Your task to perform on an android device: all mails in gmail Image 0: 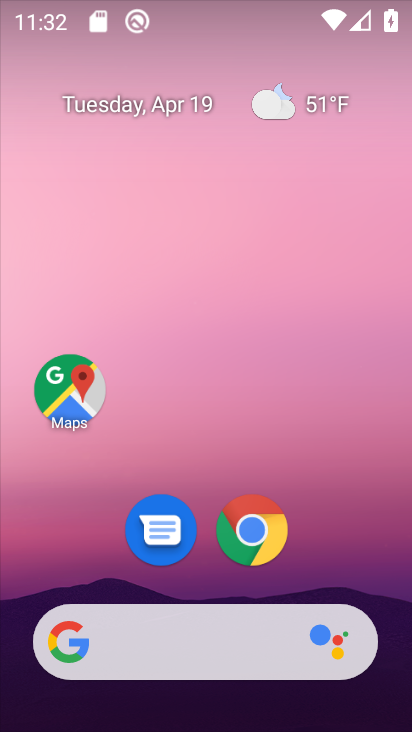
Step 0: drag from (177, 635) to (297, 54)
Your task to perform on an android device: all mails in gmail Image 1: 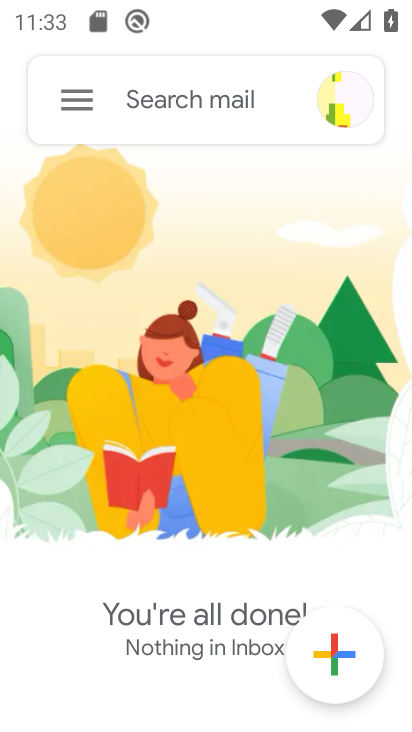
Step 1: click (89, 98)
Your task to perform on an android device: all mails in gmail Image 2: 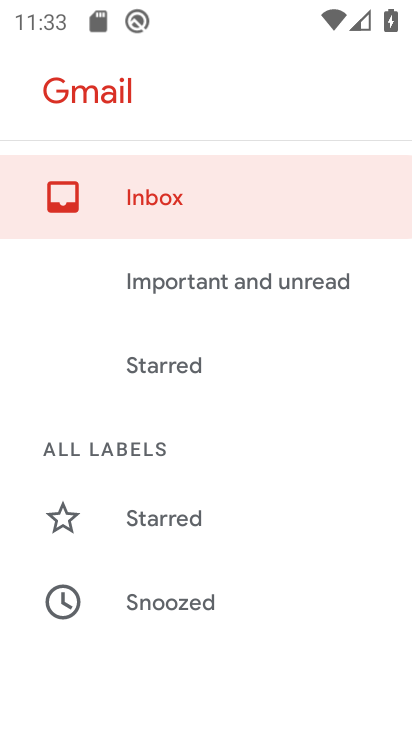
Step 2: drag from (238, 552) to (357, 195)
Your task to perform on an android device: all mails in gmail Image 3: 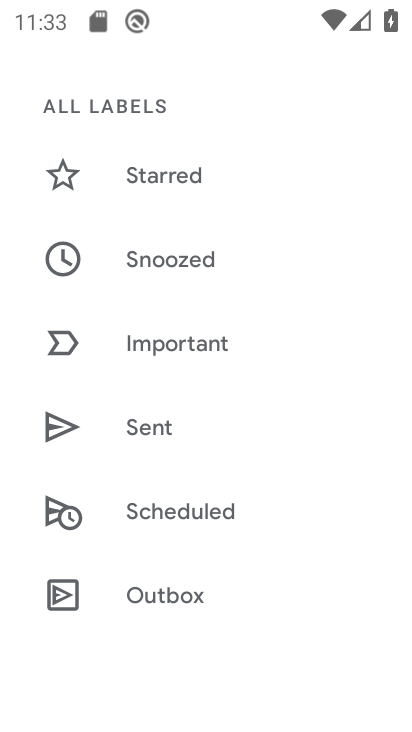
Step 3: drag from (227, 574) to (309, 193)
Your task to perform on an android device: all mails in gmail Image 4: 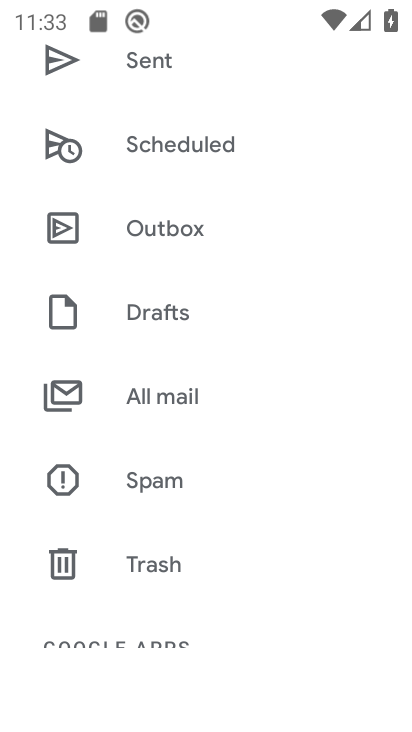
Step 4: click (173, 396)
Your task to perform on an android device: all mails in gmail Image 5: 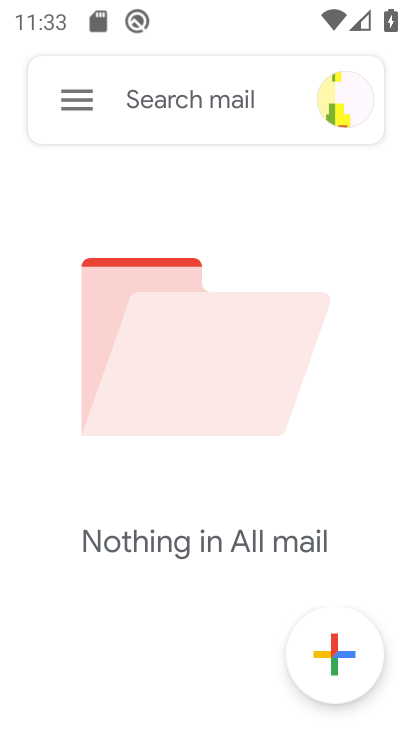
Step 5: task complete